Your task to perform on an android device: Go to notification settings Image 0: 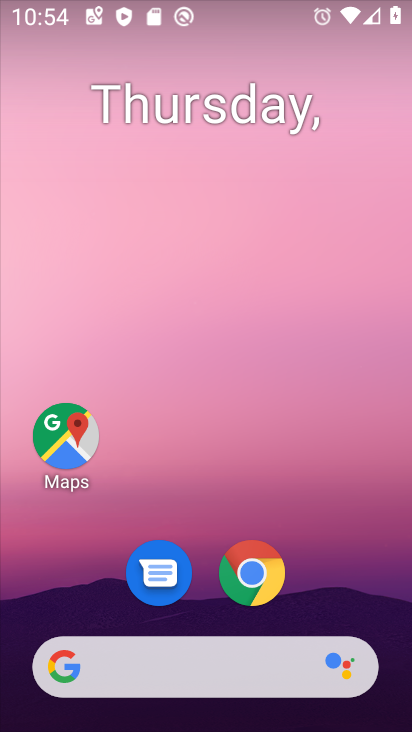
Step 0: drag from (319, 583) to (265, 100)
Your task to perform on an android device: Go to notification settings Image 1: 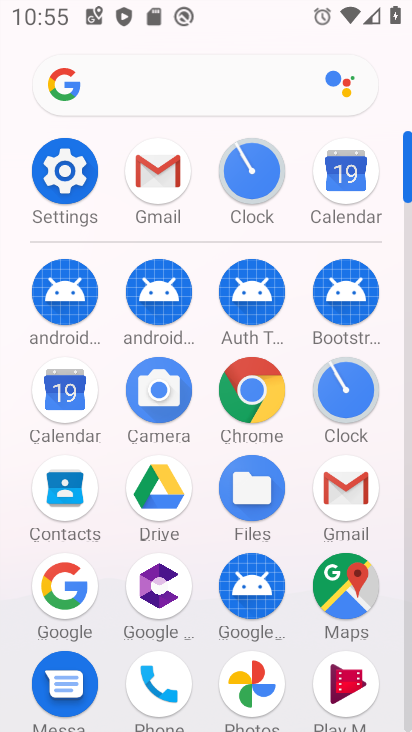
Step 1: click (55, 172)
Your task to perform on an android device: Go to notification settings Image 2: 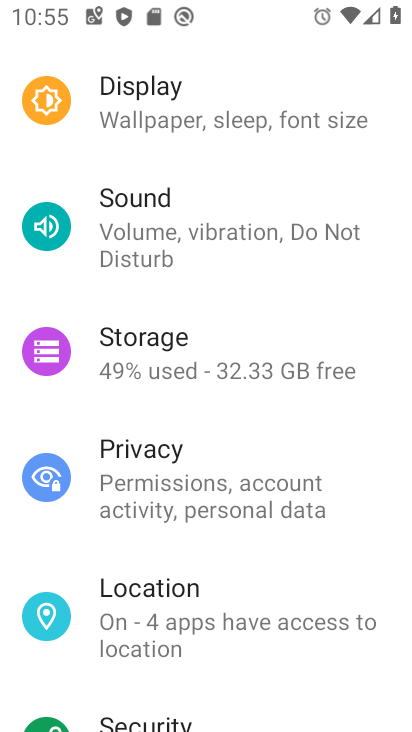
Step 2: drag from (271, 163) to (215, 657)
Your task to perform on an android device: Go to notification settings Image 3: 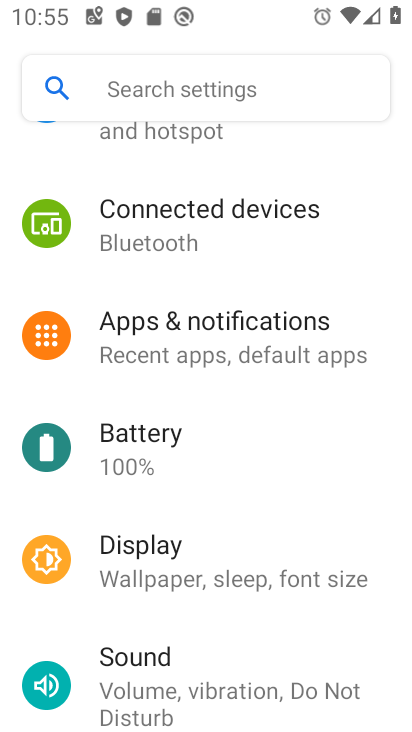
Step 3: click (206, 328)
Your task to perform on an android device: Go to notification settings Image 4: 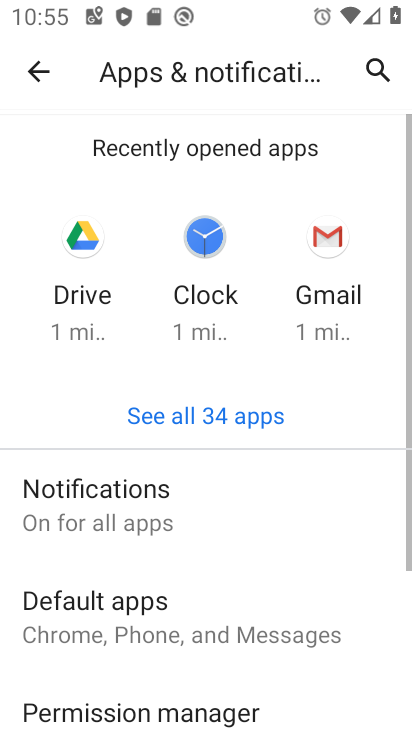
Step 4: click (127, 501)
Your task to perform on an android device: Go to notification settings Image 5: 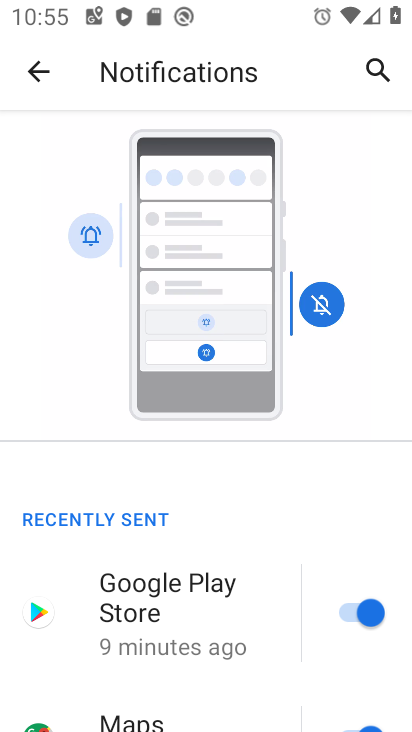
Step 5: task complete